Your task to perform on an android device: Open the Play Movies app and select the watchlist tab. Image 0: 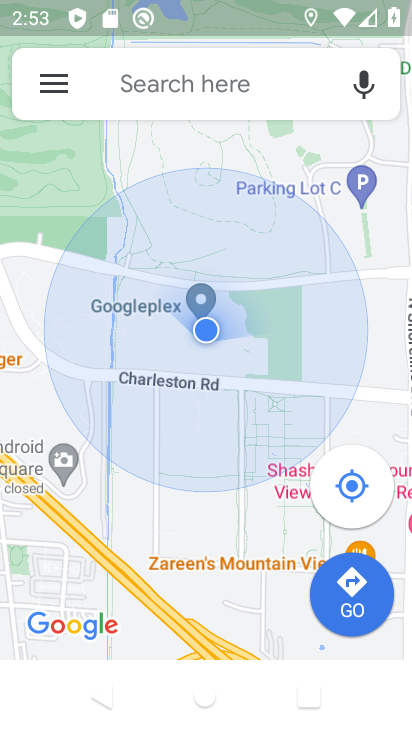
Step 0: press home button
Your task to perform on an android device: Open the Play Movies app and select the watchlist tab. Image 1: 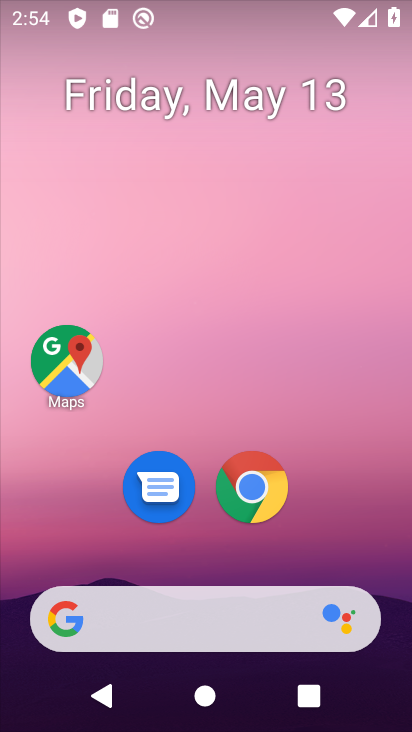
Step 1: drag from (380, 494) to (328, 10)
Your task to perform on an android device: Open the Play Movies app and select the watchlist tab. Image 2: 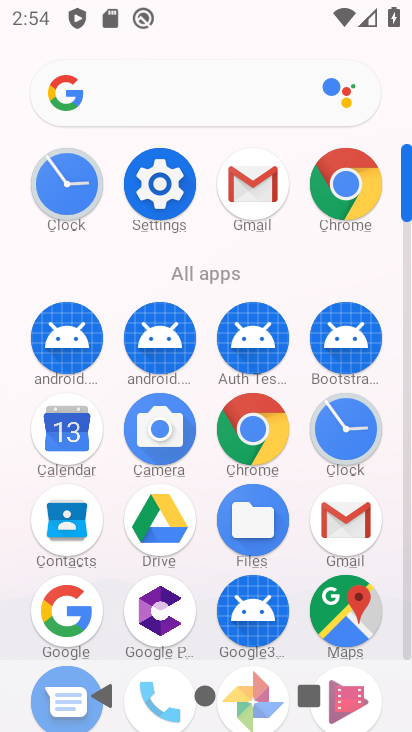
Step 2: drag from (403, 512) to (384, 237)
Your task to perform on an android device: Open the Play Movies app and select the watchlist tab. Image 3: 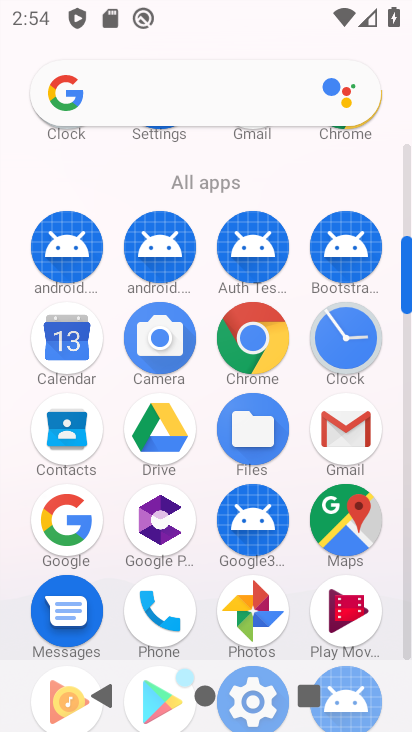
Step 3: click (368, 602)
Your task to perform on an android device: Open the Play Movies app and select the watchlist tab. Image 4: 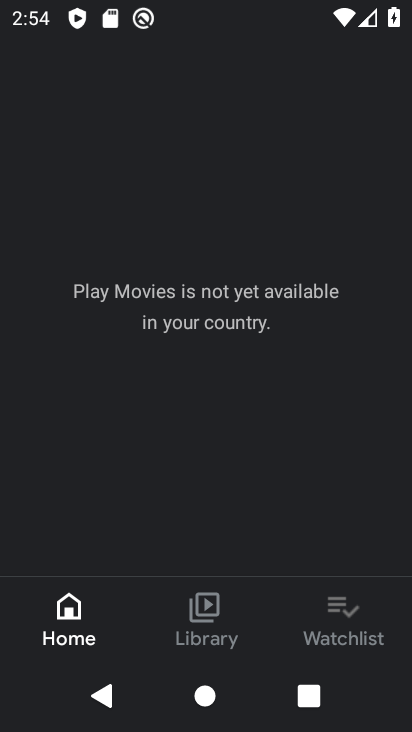
Step 4: click (354, 613)
Your task to perform on an android device: Open the Play Movies app and select the watchlist tab. Image 5: 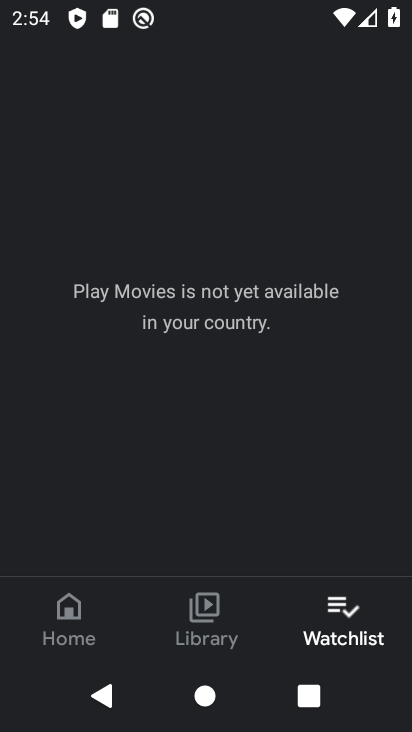
Step 5: task complete